Your task to perform on an android device: install app "Cash App" Image 0: 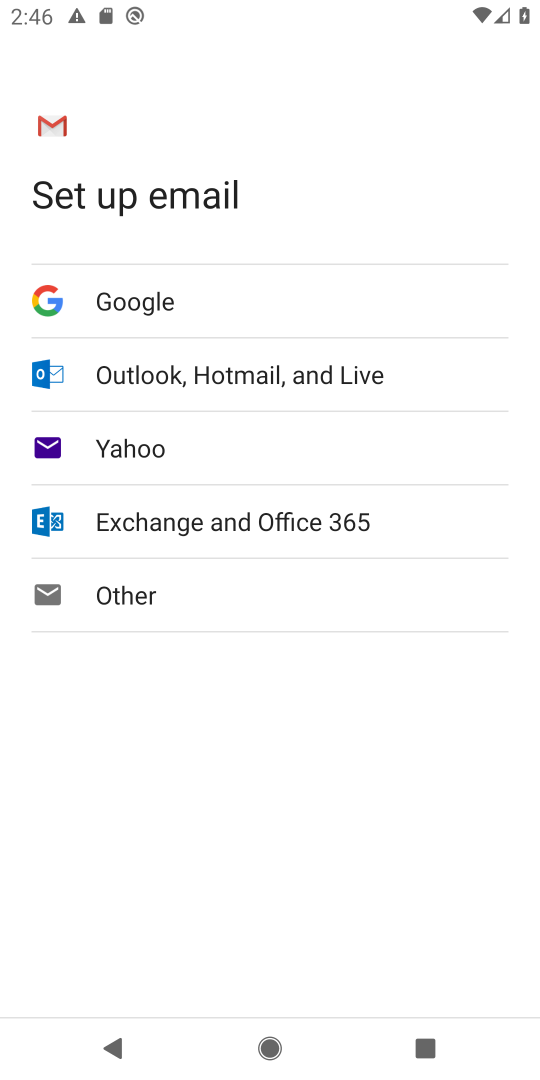
Step 0: press home button
Your task to perform on an android device: install app "Cash App" Image 1: 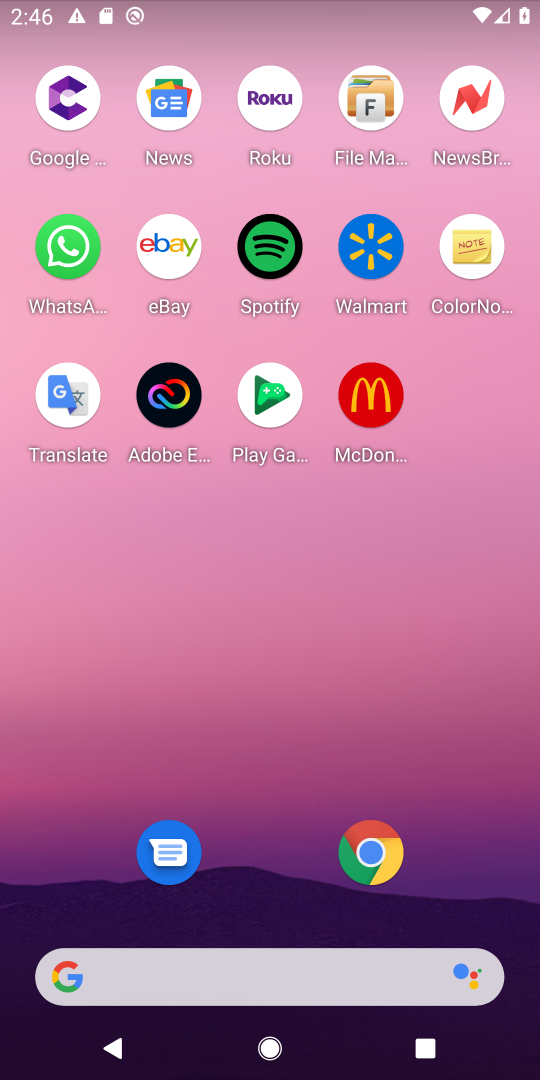
Step 1: drag from (269, 891) to (274, 140)
Your task to perform on an android device: install app "Cash App" Image 2: 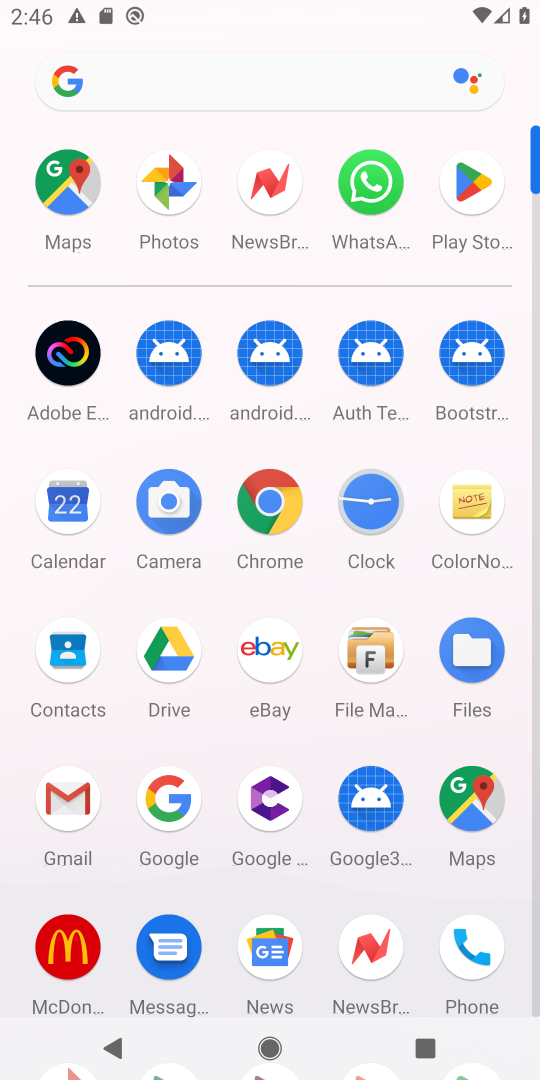
Step 2: click (478, 185)
Your task to perform on an android device: install app "Cash App" Image 3: 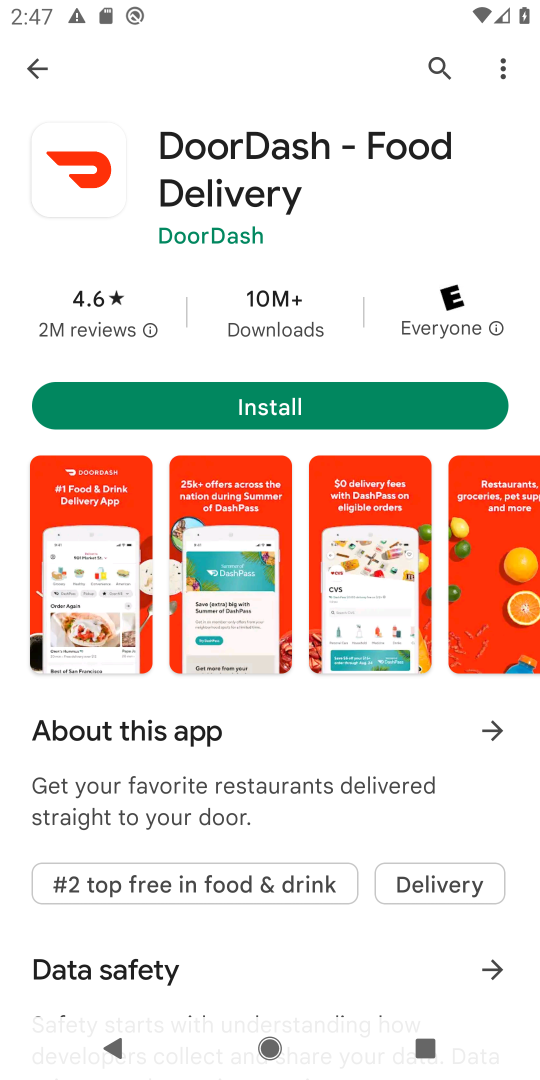
Step 3: click (432, 61)
Your task to perform on an android device: install app "Cash App" Image 4: 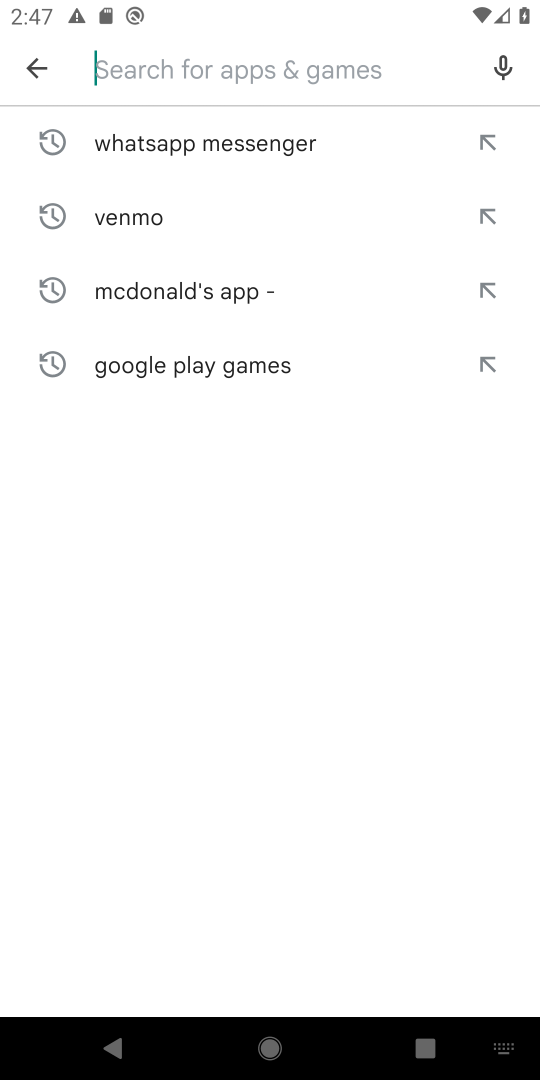
Step 4: type "Cash App"
Your task to perform on an android device: install app "Cash App" Image 5: 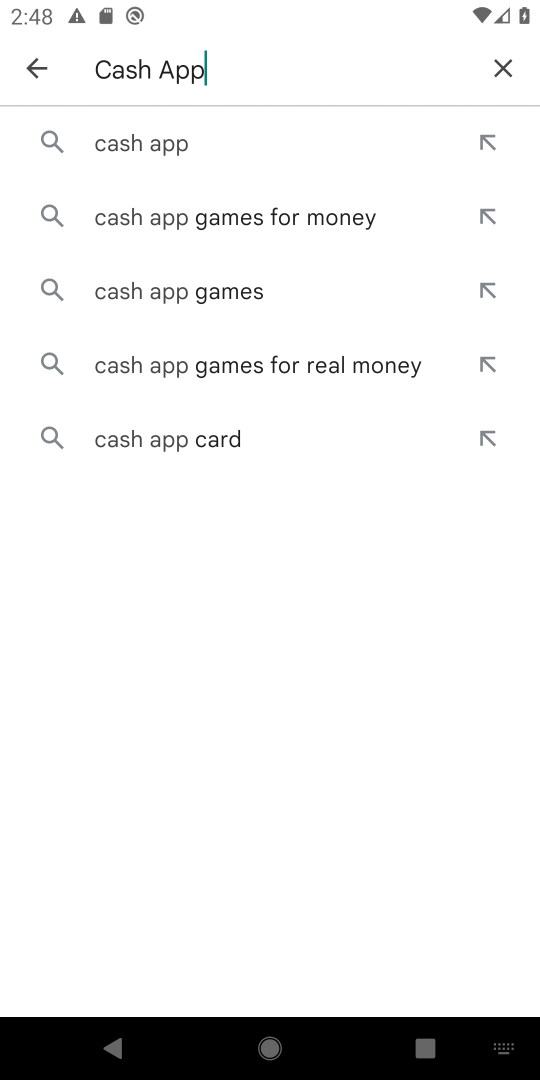
Step 5: click (162, 145)
Your task to perform on an android device: install app "Cash App" Image 6: 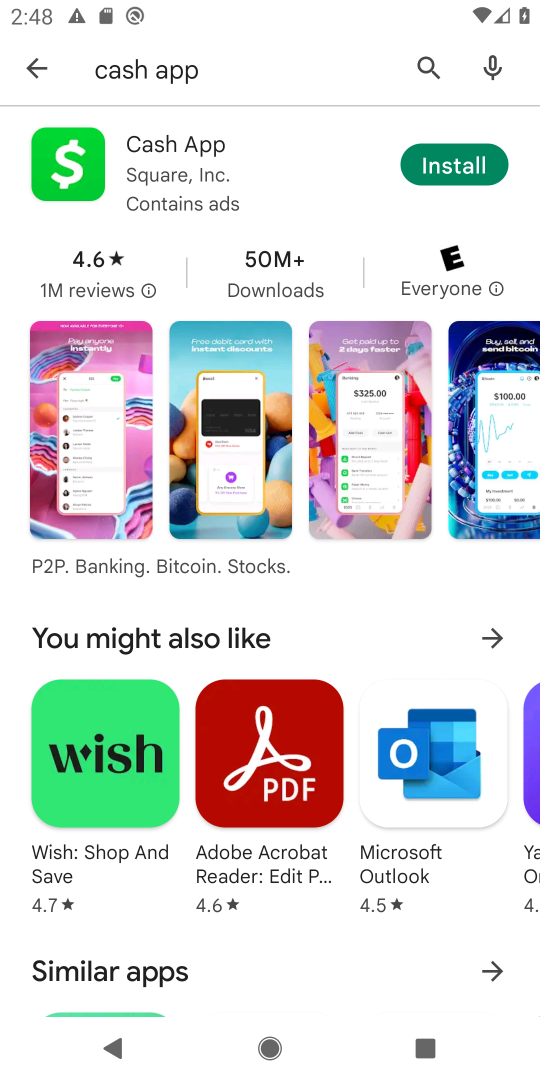
Step 6: click (442, 161)
Your task to perform on an android device: install app "Cash App" Image 7: 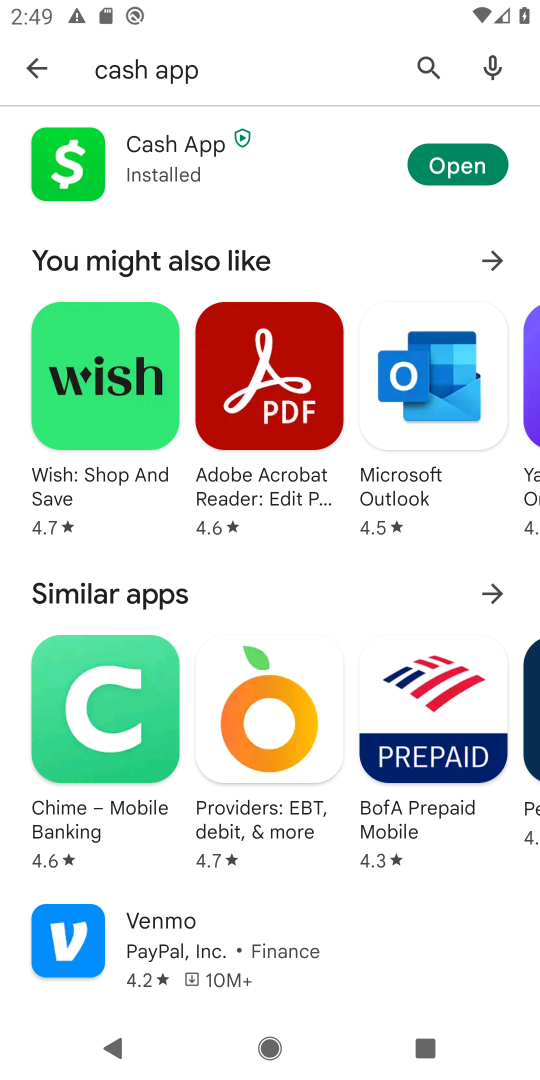
Step 7: task complete